Your task to perform on an android device: Search for Mexican restaurants on Maps Image 0: 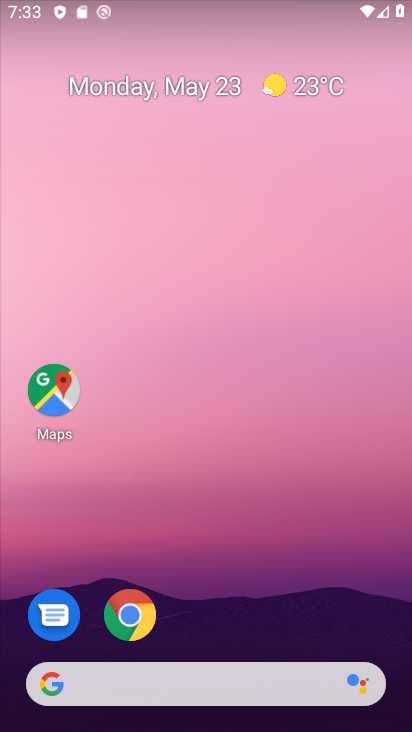
Step 0: click (54, 390)
Your task to perform on an android device: Search for Mexican restaurants on Maps Image 1: 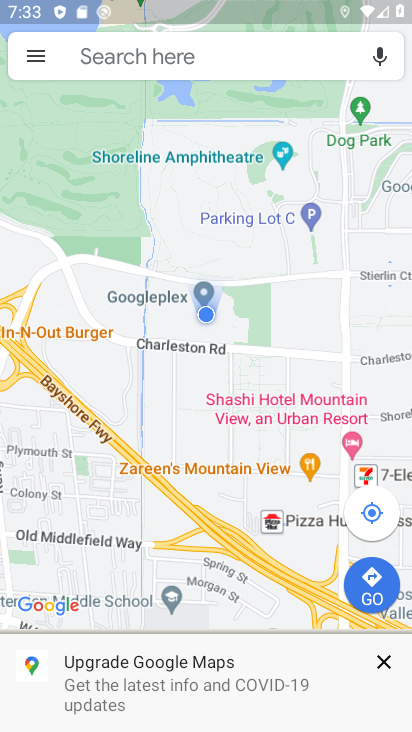
Step 1: click (172, 51)
Your task to perform on an android device: Search for Mexican restaurants on Maps Image 2: 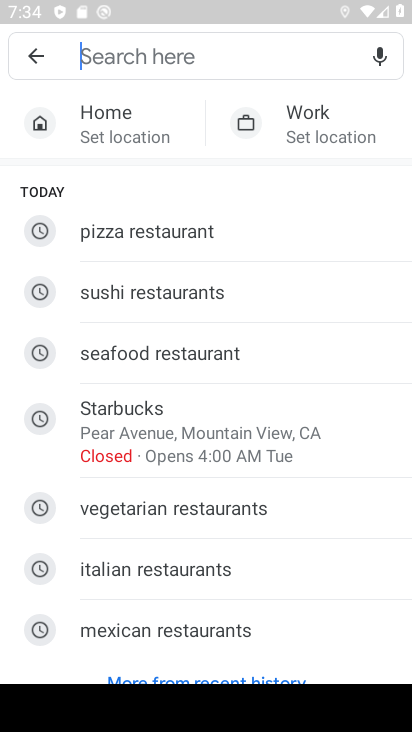
Step 2: type "Mexican restaurants"
Your task to perform on an android device: Search for Mexican restaurants on Maps Image 3: 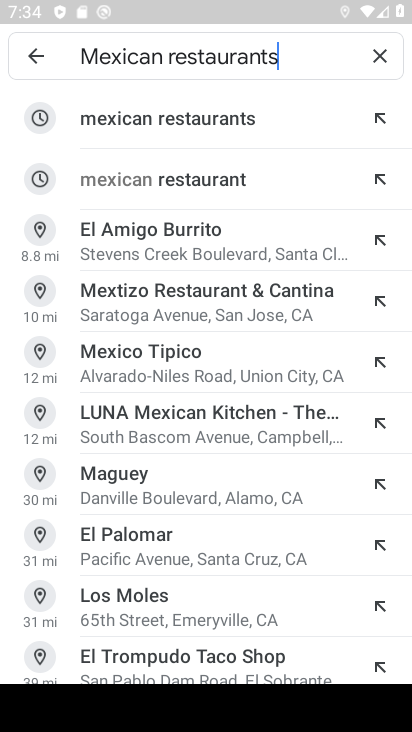
Step 3: click (213, 121)
Your task to perform on an android device: Search for Mexican restaurants on Maps Image 4: 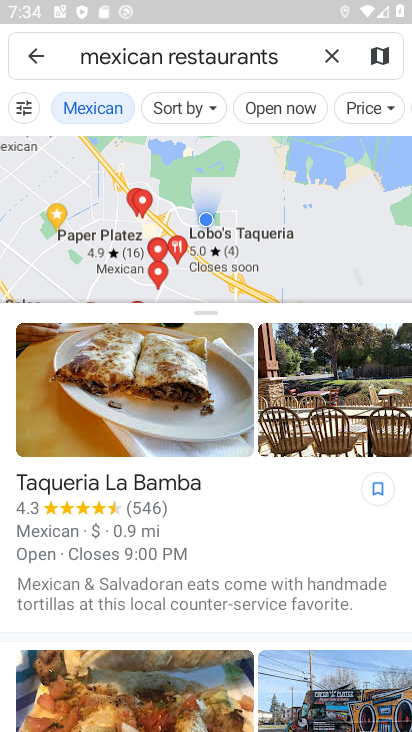
Step 4: task complete